Your task to perform on an android device: open app "Nova Launcher" (install if not already installed) Image 0: 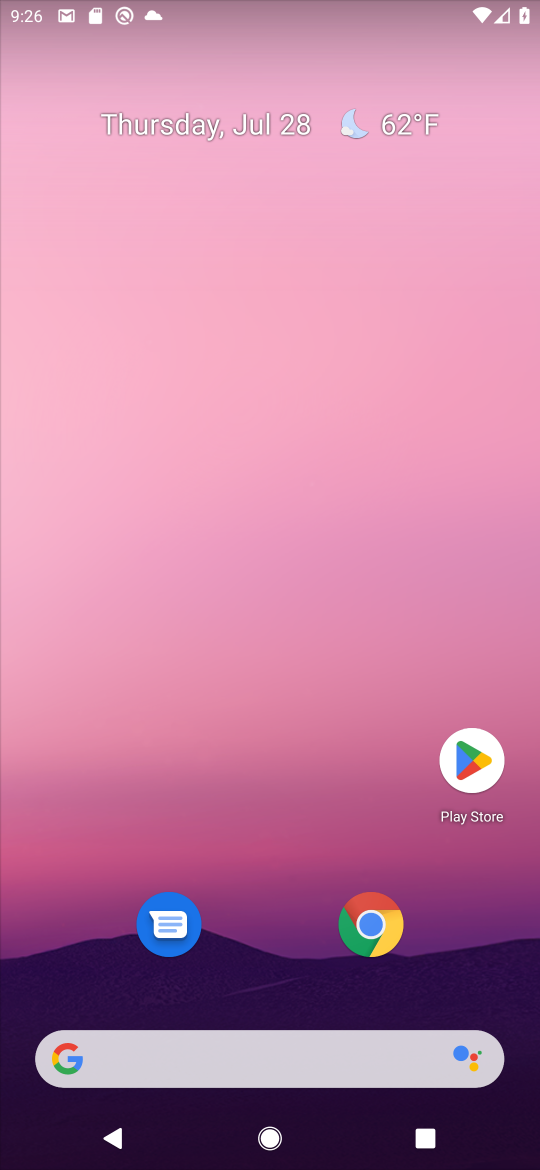
Step 0: press home button
Your task to perform on an android device: open app "Nova Launcher" (install if not already installed) Image 1: 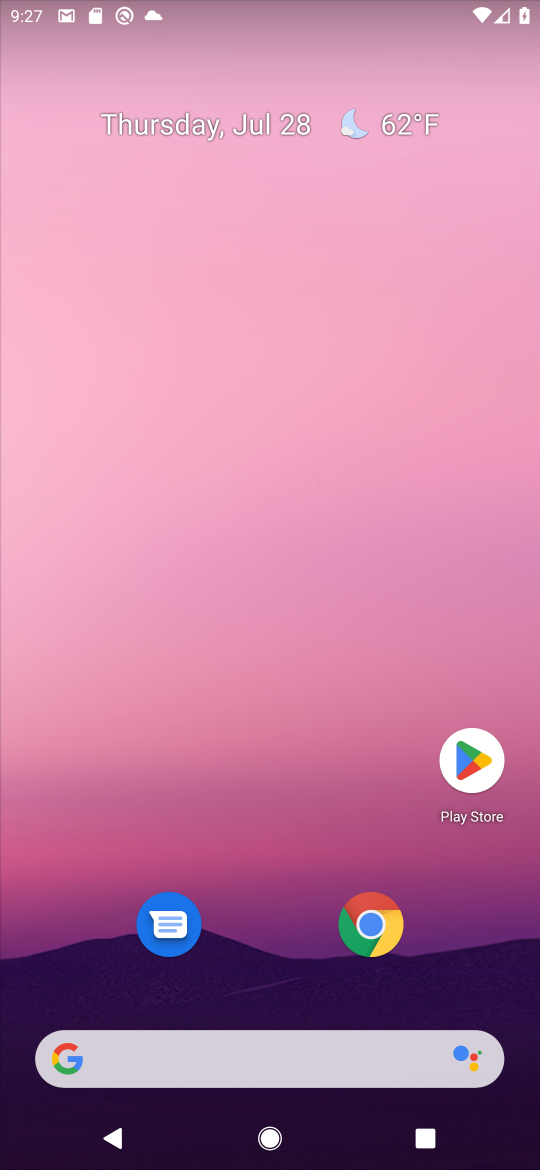
Step 1: click (474, 744)
Your task to perform on an android device: open app "Nova Launcher" (install if not already installed) Image 2: 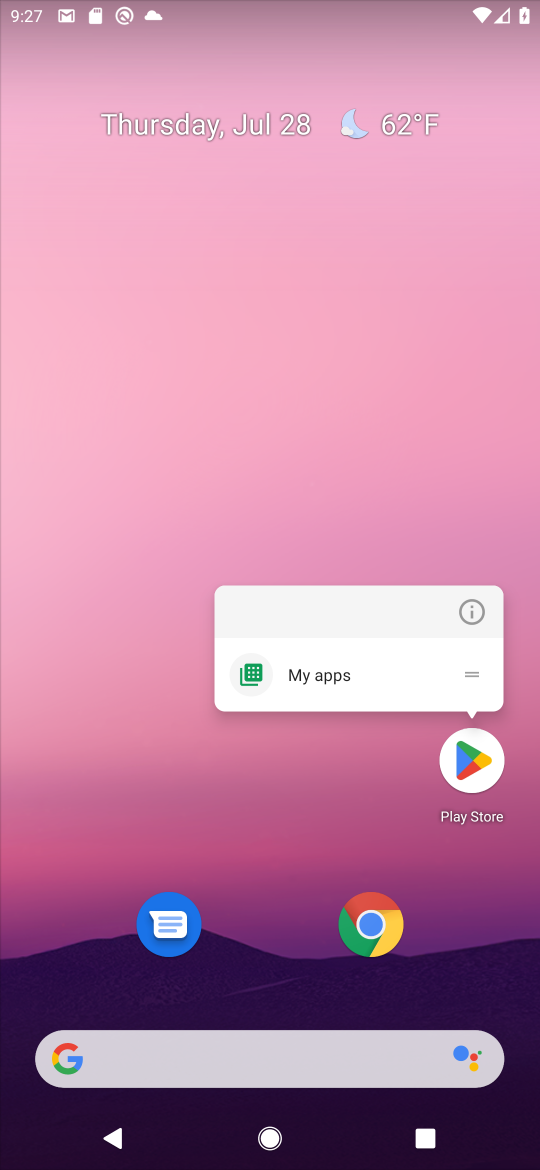
Step 2: click (472, 753)
Your task to perform on an android device: open app "Nova Launcher" (install if not already installed) Image 3: 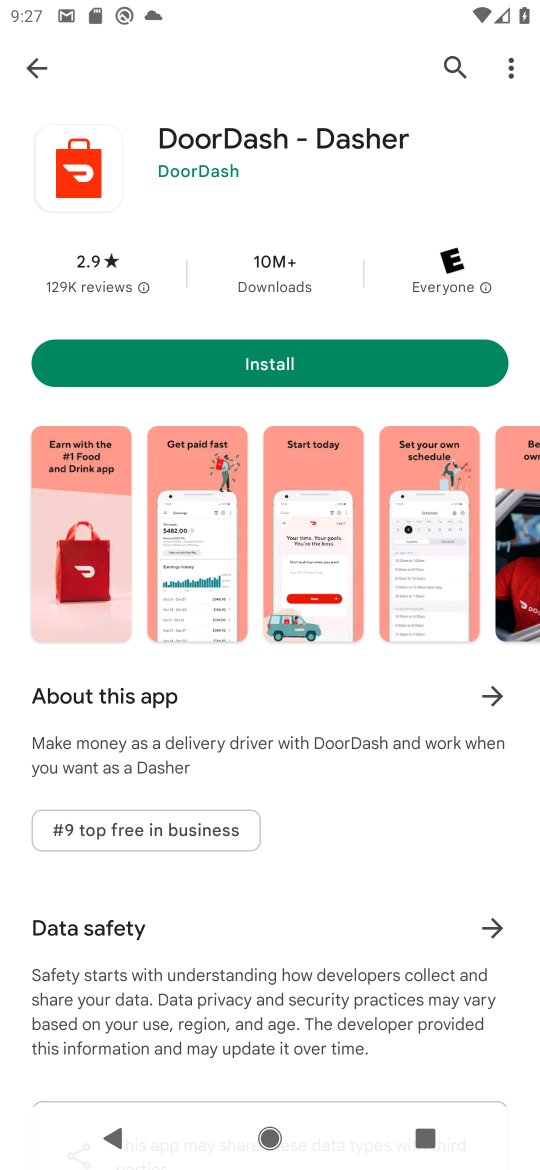
Step 3: click (30, 65)
Your task to perform on an android device: open app "Nova Launcher" (install if not already installed) Image 4: 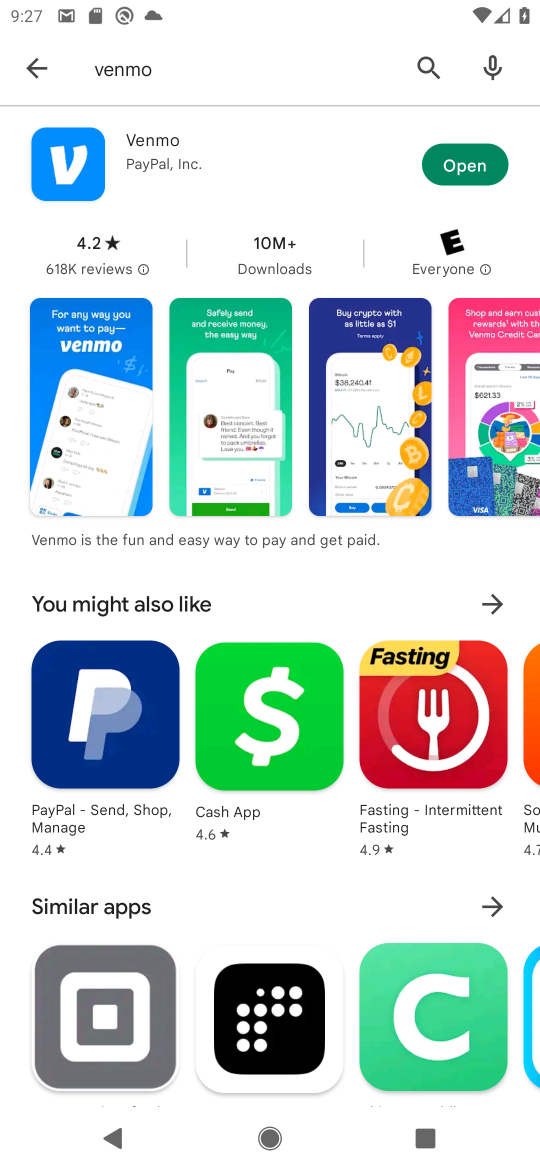
Step 4: click (422, 61)
Your task to perform on an android device: open app "Nova Launcher" (install if not already installed) Image 5: 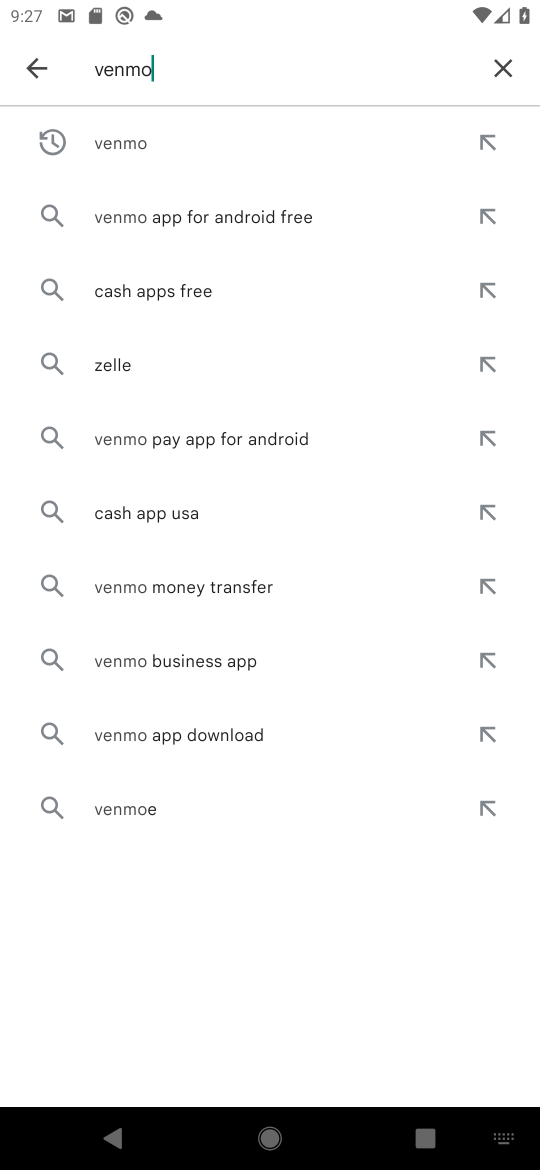
Step 5: click (498, 62)
Your task to perform on an android device: open app "Nova Launcher" (install if not already installed) Image 6: 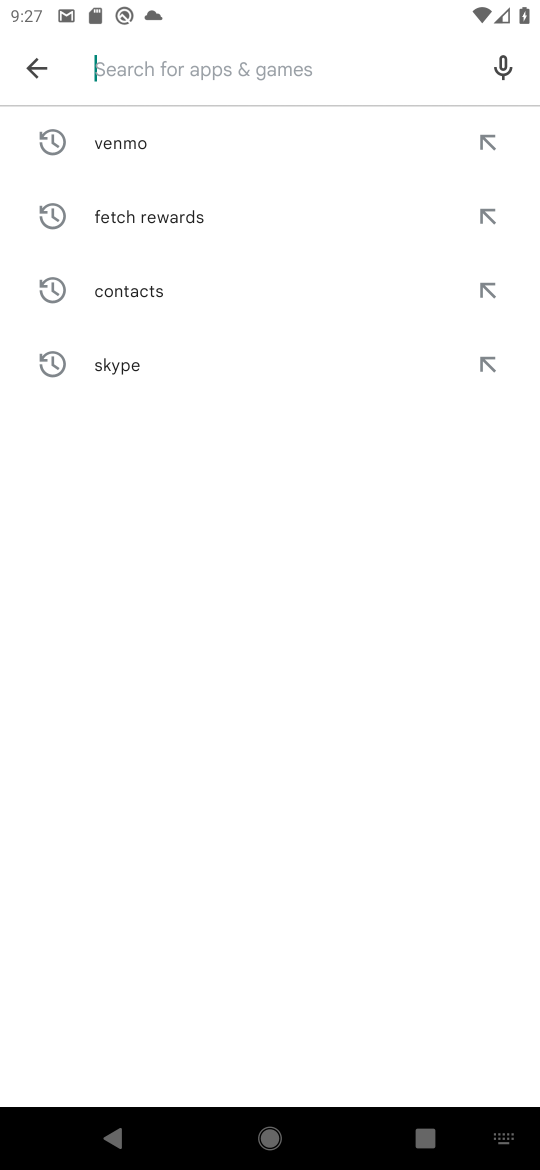
Step 6: type "Nova Launcher"
Your task to perform on an android device: open app "Nova Launcher" (install if not already installed) Image 7: 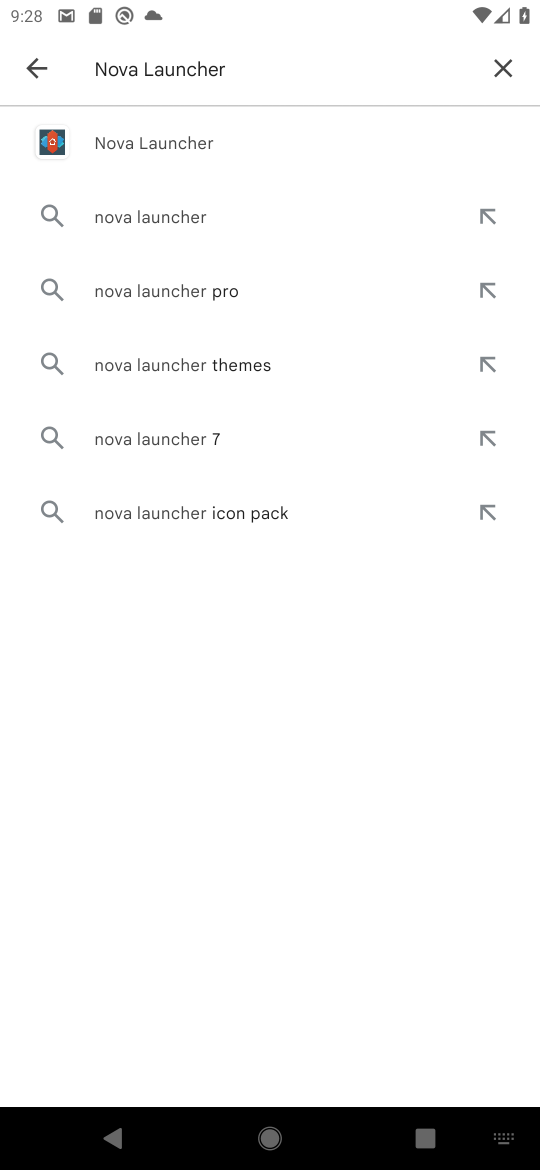
Step 7: click (202, 134)
Your task to perform on an android device: open app "Nova Launcher" (install if not already installed) Image 8: 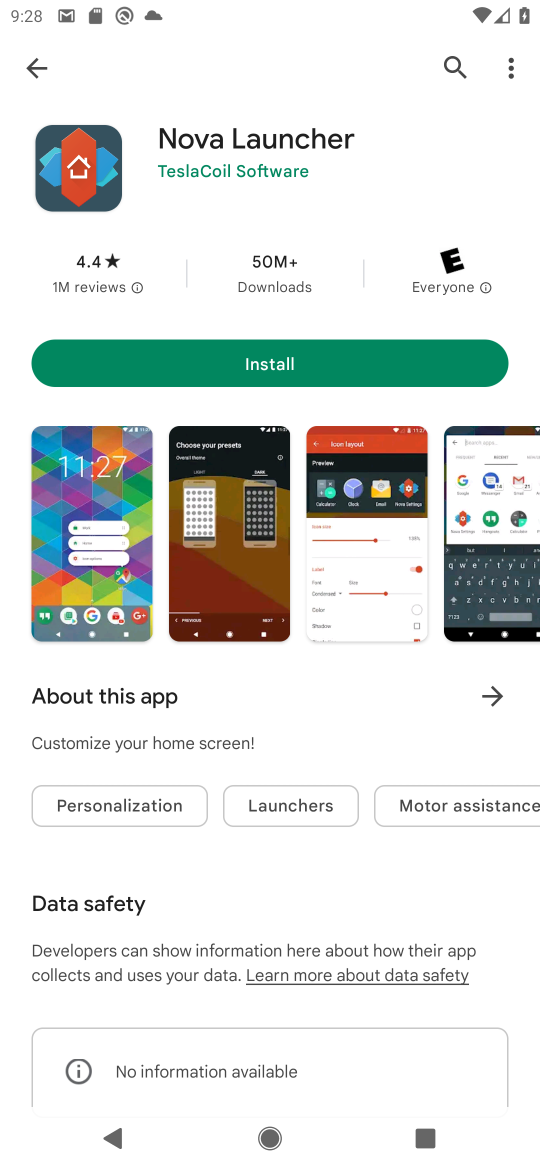
Step 8: click (308, 361)
Your task to perform on an android device: open app "Nova Launcher" (install if not already installed) Image 9: 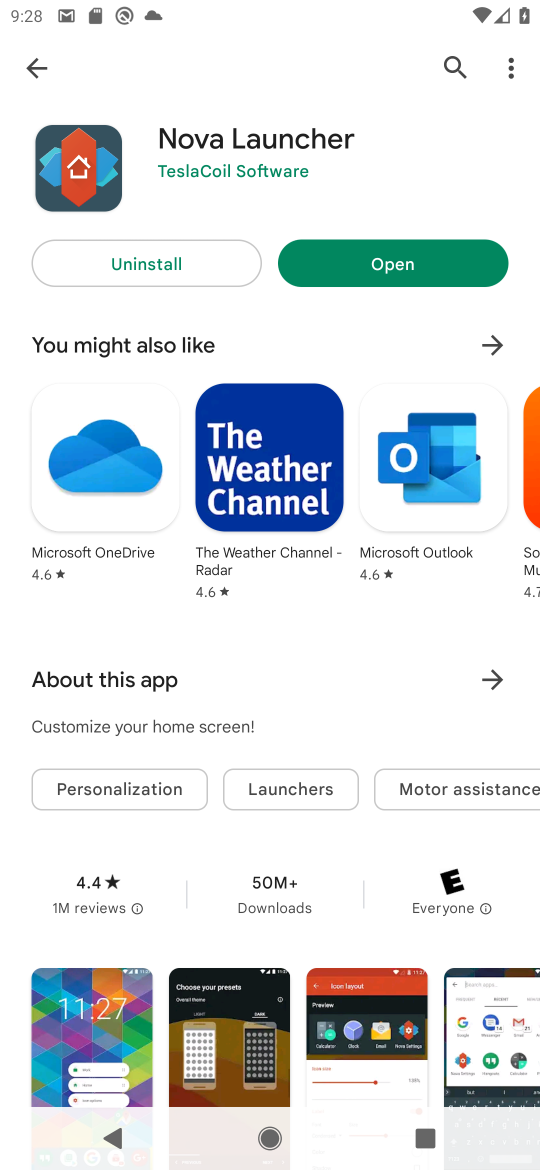
Step 9: click (413, 259)
Your task to perform on an android device: open app "Nova Launcher" (install if not already installed) Image 10: 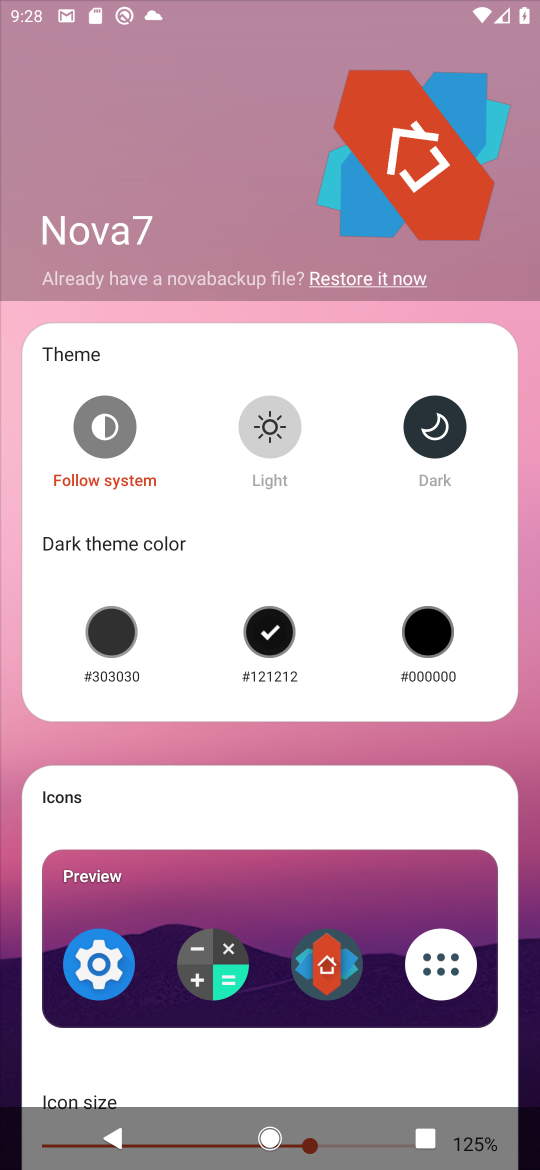
Step 10: task complete